Your task to perform on an android device: Find coffee shops on Maps Image 0: 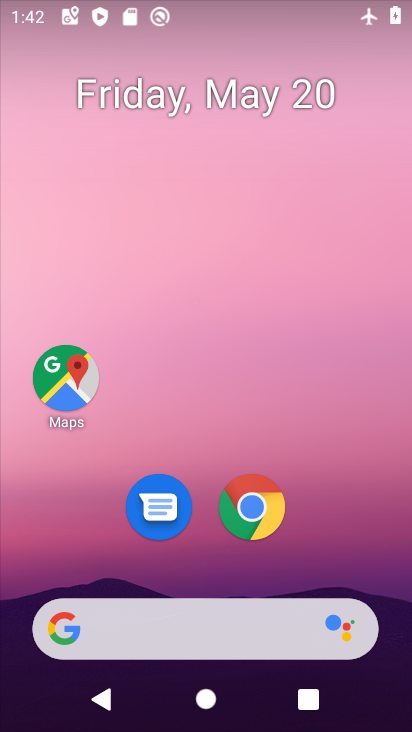
Step 0: drag from (232, 725) to (231, 119)
Your task to perform on an android device: Find coffee shops on Maps Image 1: 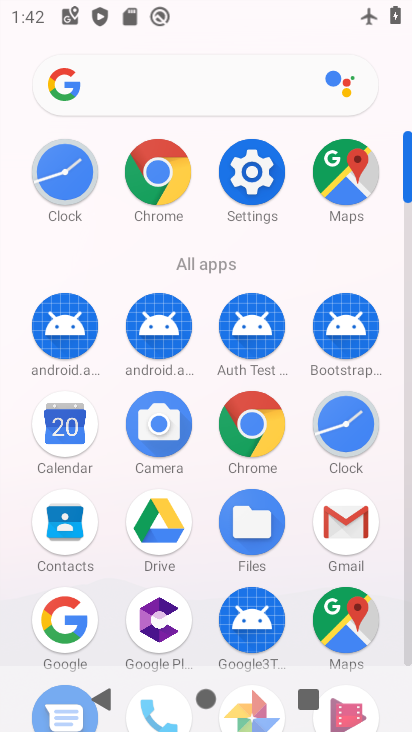
Step 1: click (344, 623)
Your task to perform on an android device: Find coffee shops on Maps Image 2: 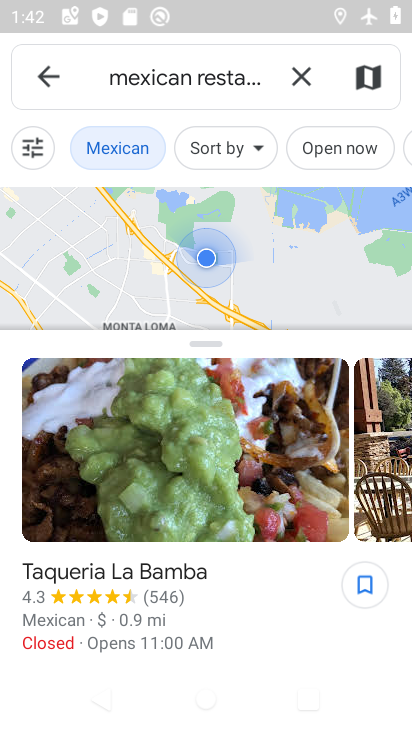
Step 2: click (288, 75)
Your task to perform on an android device: Find coffee shops on Maps Image 3: 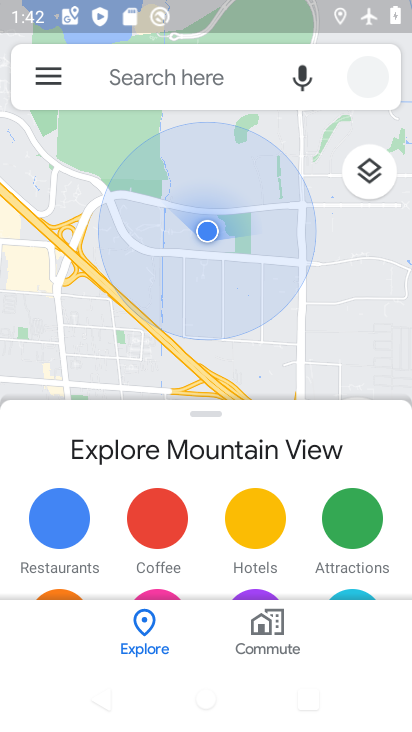
Step 3: click (183, 72)
Your task to perform on an android device: Find coffee shops on Maps Image 4: 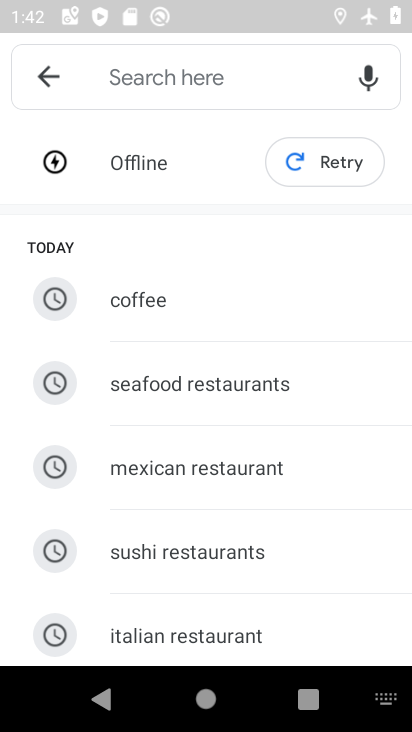
Step 4: type "coffee shops "
Your task to perform on an android device: Find coffee shops on Maps Image 5: 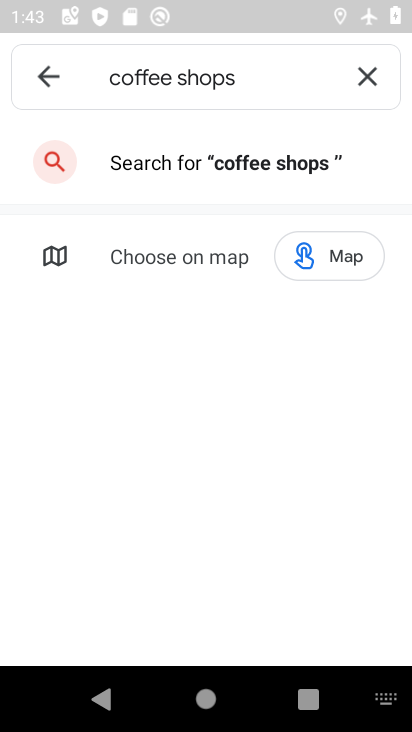
Step 5: task complete